Your task to perform on an android device: toggle priority inbox in the gmail app Image 0: 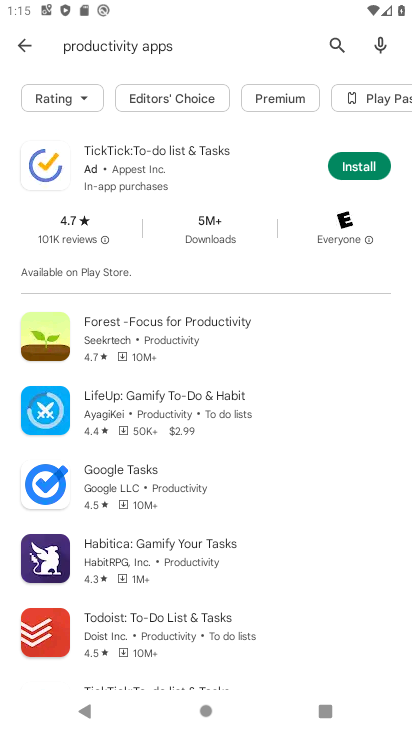
Step 0: press home button
Your task to perform on an android device: toggle priority inbox in the gmail app Image 1: 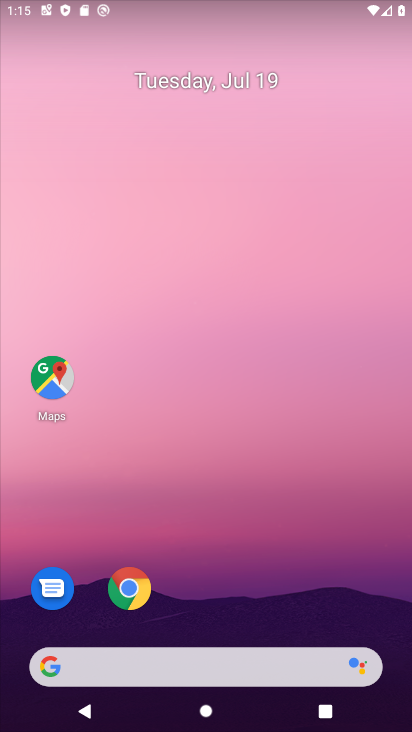
Step 1: drag from (51, 670) to (206, 3)
Your task to perform on an android device: toggle priority inbox in the gmail app Image 2: 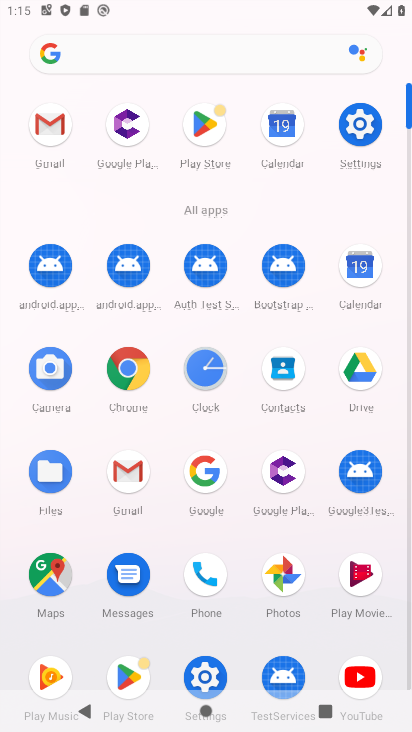
Step 2: click (50, 128)
Your task to perform on an android device: toggle priority inbox in the gmail app Image 3: 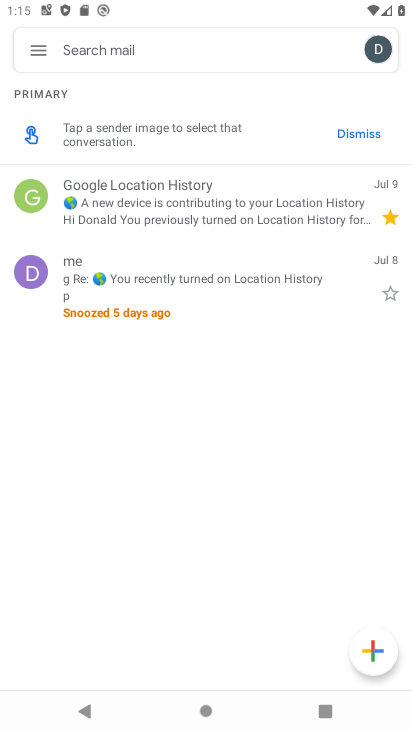
Step 3: click (26, 40)
Your task to perform on an android device: toggle priority inbox in the gmail app Image 4: 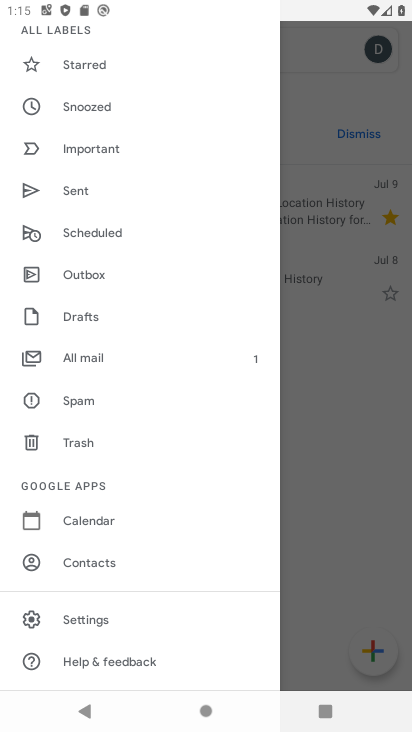
Step 4: click (84, 614)
Your task to perform on an android device: toggle priority inbox in the gmail app Image 5: 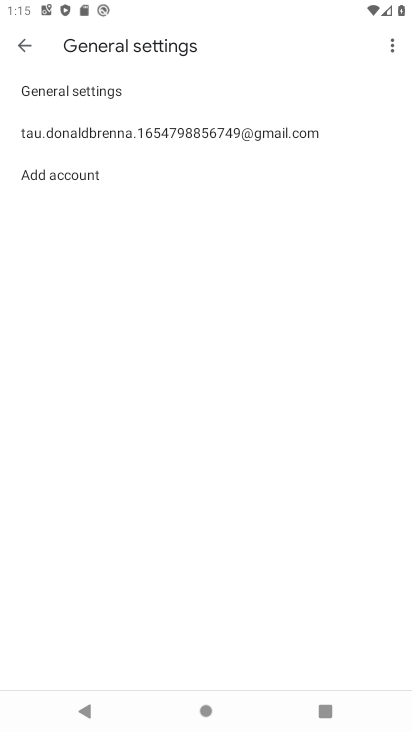
Step 5: click (93, 131)
Your task to perform on an android device: toggle priority inbox in the gmail app Image 6: 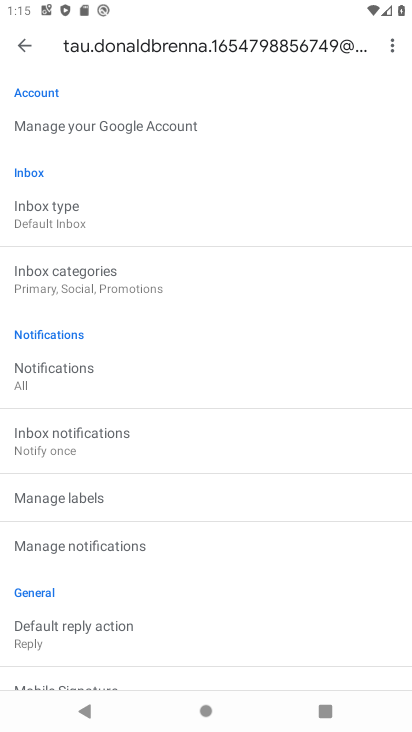
Step 6: click (84, 219)
Your task to perform on an android device: toggle priority inbox in the gmail app Image 7: 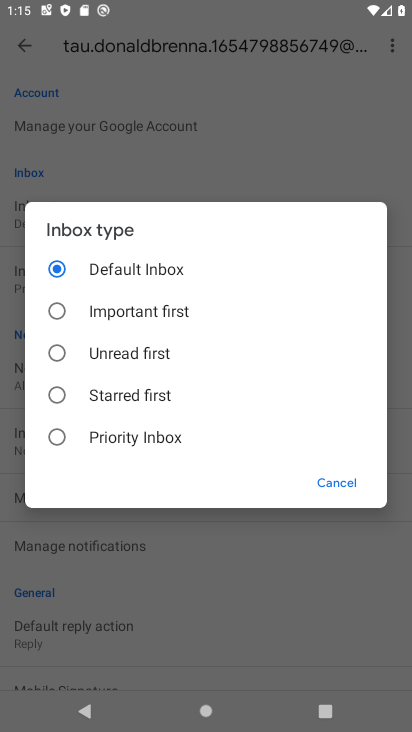
Step 7: click (57, 430)
Your task to perform on an android device: toggle priority inbox in the gmail app Image 8: 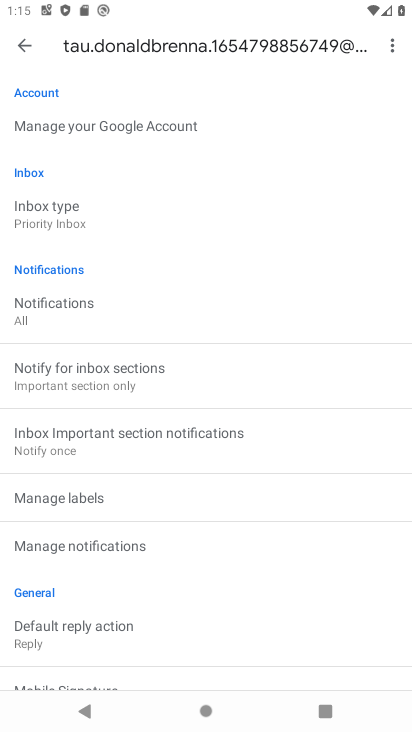
Step 8: task complete